Your task to perform on an android device: turn on sleep mode Image 0: 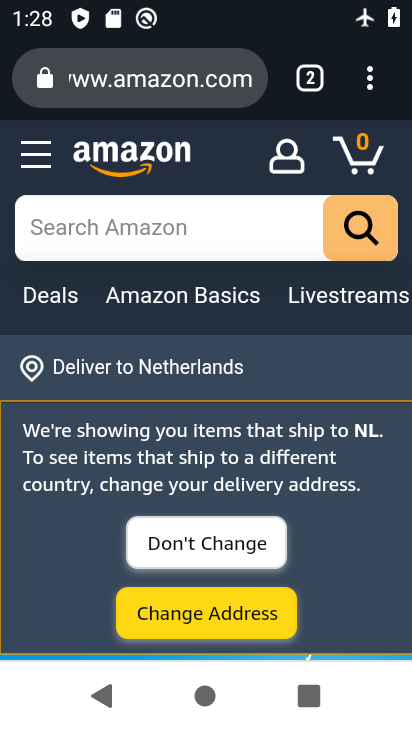
Step 0: press home button
Your task to perform on an android device: turn on sleep mode Image 1: 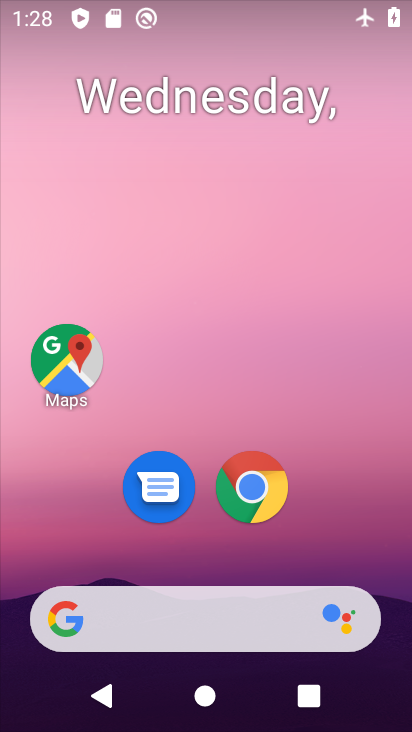
Step 1: drag from (348, 472) to (268, 185)
Your task to perform on an android device: turn on sleep mode Image 2: 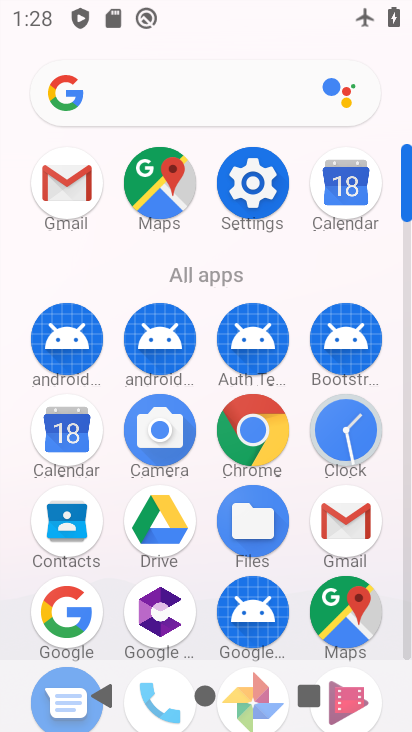
Step 2: click (253, 182)
Your task to perform on an android device: turn on sleep mode Image 3: 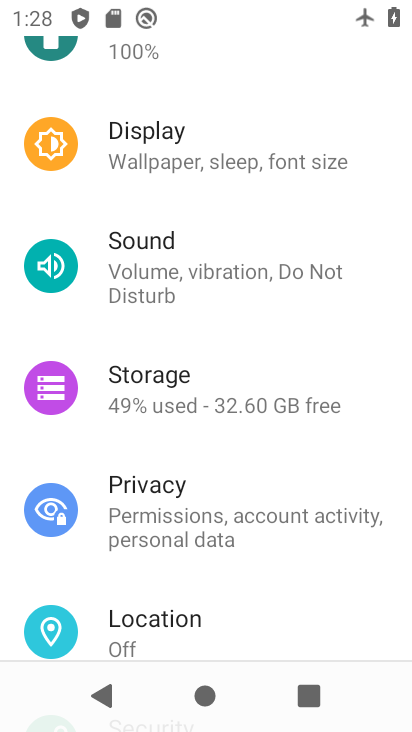
Step 3: click (149, 137)
Your task to perform on an android device: turn on sleep mode Image 4: 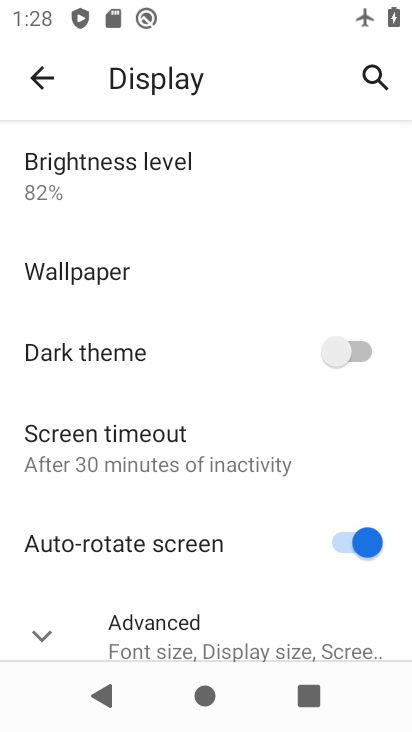
Step 4: task complete